Your task to perform on an android device: Open Android settings Image 0: 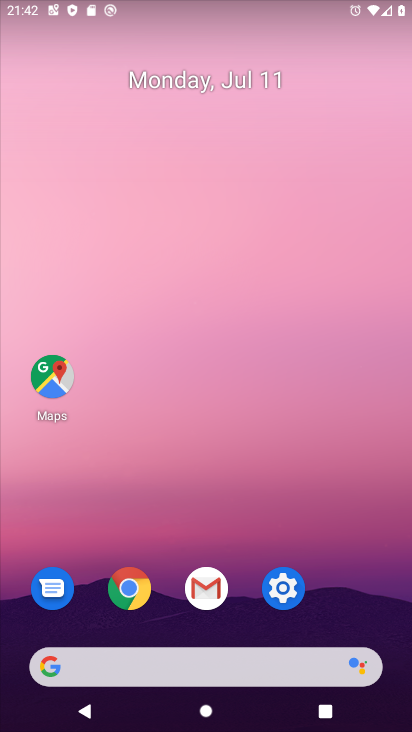
Step 0: click (277, 579)
Your task to perform on an android device: Open Android settings Image 1: 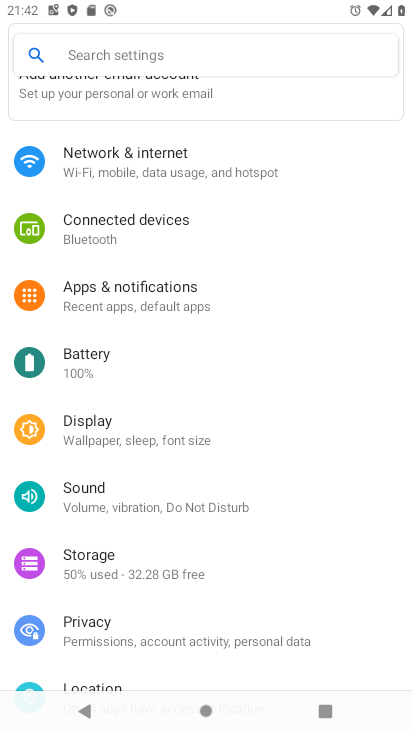
Step 1: click (105, 51)
Your task to perform on an android device: Open Android settings Image 2: 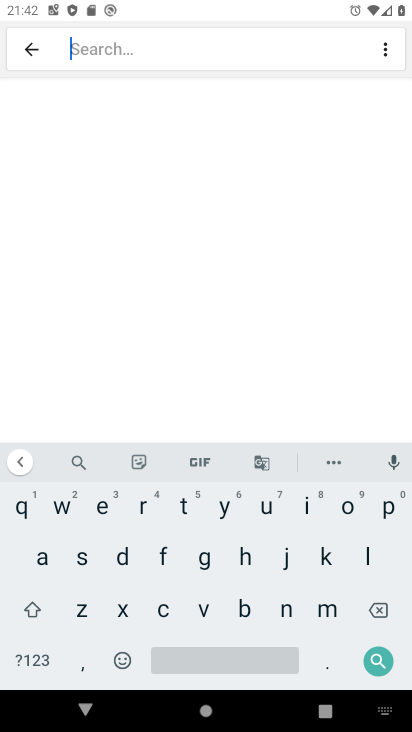
Step 2: click (44, 557)
Your task to perform on an android device: Open Android settings Image 3: 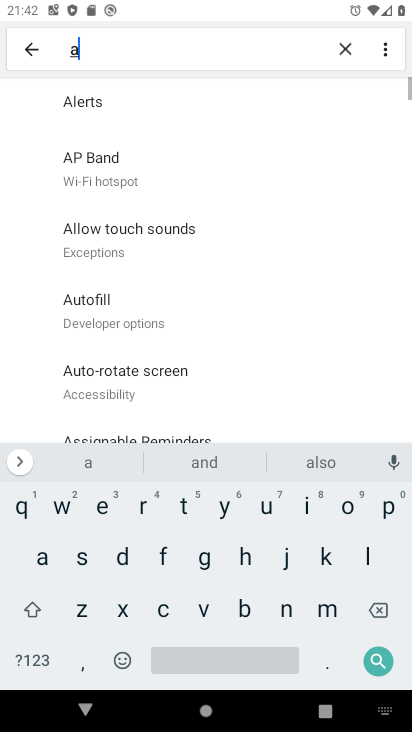
Step 3: click (293, 614)
Your task to perform on an android device: Open Android settings Image 4: 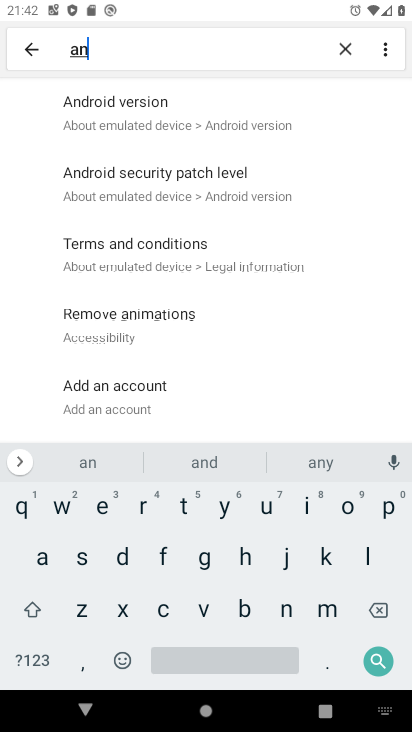
Step 4: click (113, 108)
Your task to perform on an android device: Open Android settings Image 5: 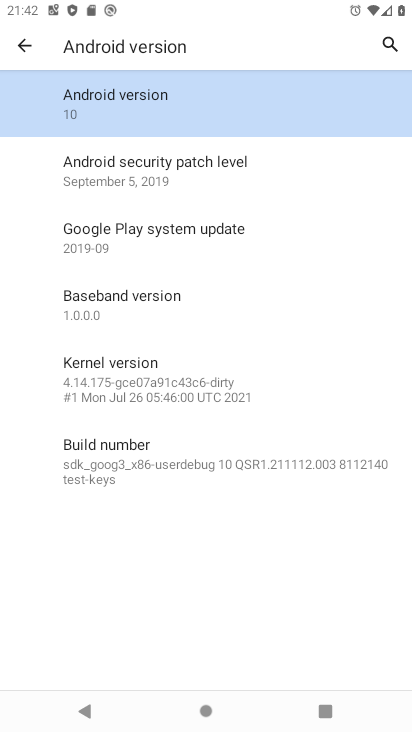
Step 5: click (115, 105)
Your task to perform on an android device: Open Android settings Image 6: 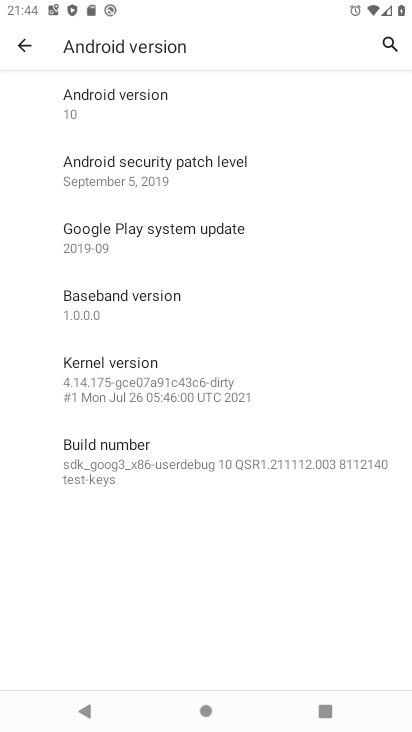
Step 6: task complete